Your task to perform on an android device: Where can I buy a nice beach umbrella? Image 0: 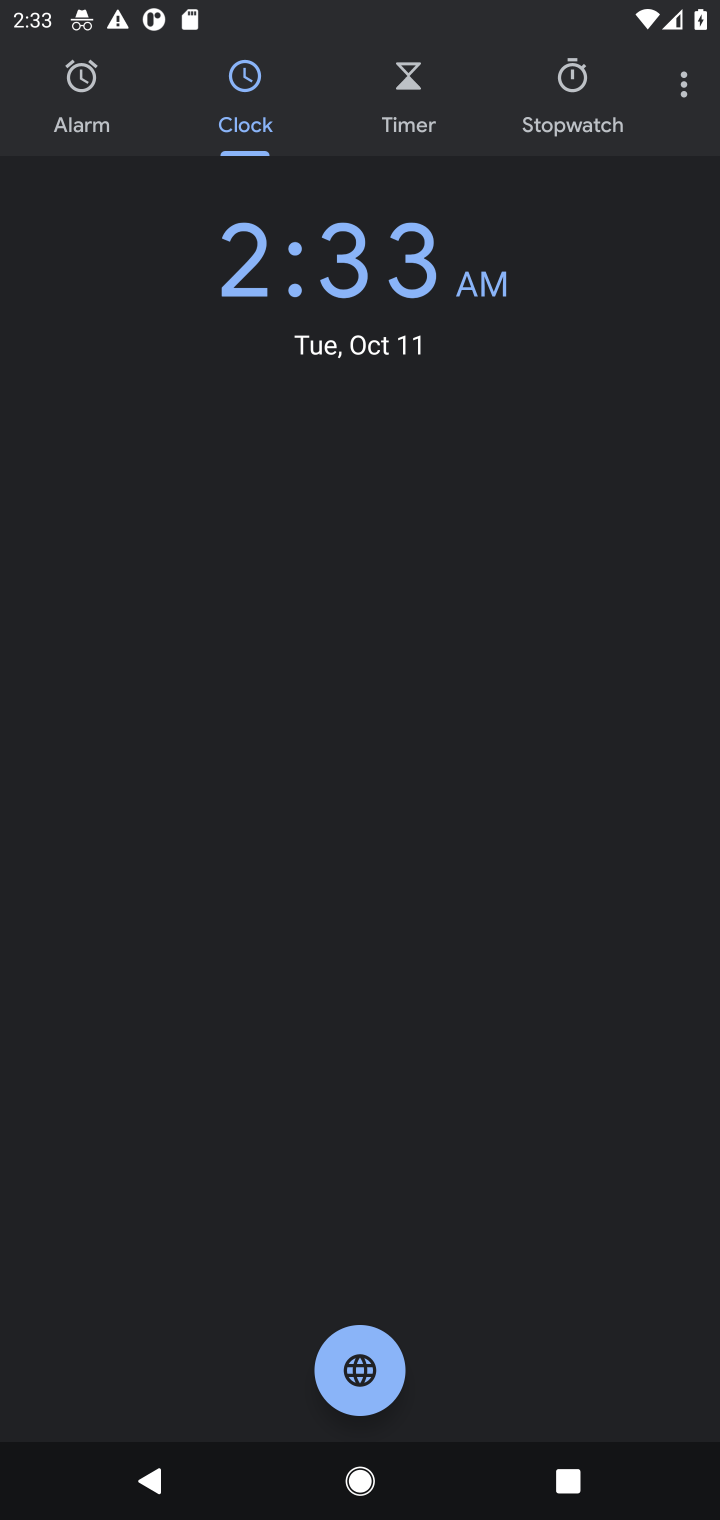
Step 0: press home button
Your task to perform on an android device: Where can I buy a nice beach umbrella? Image 1: 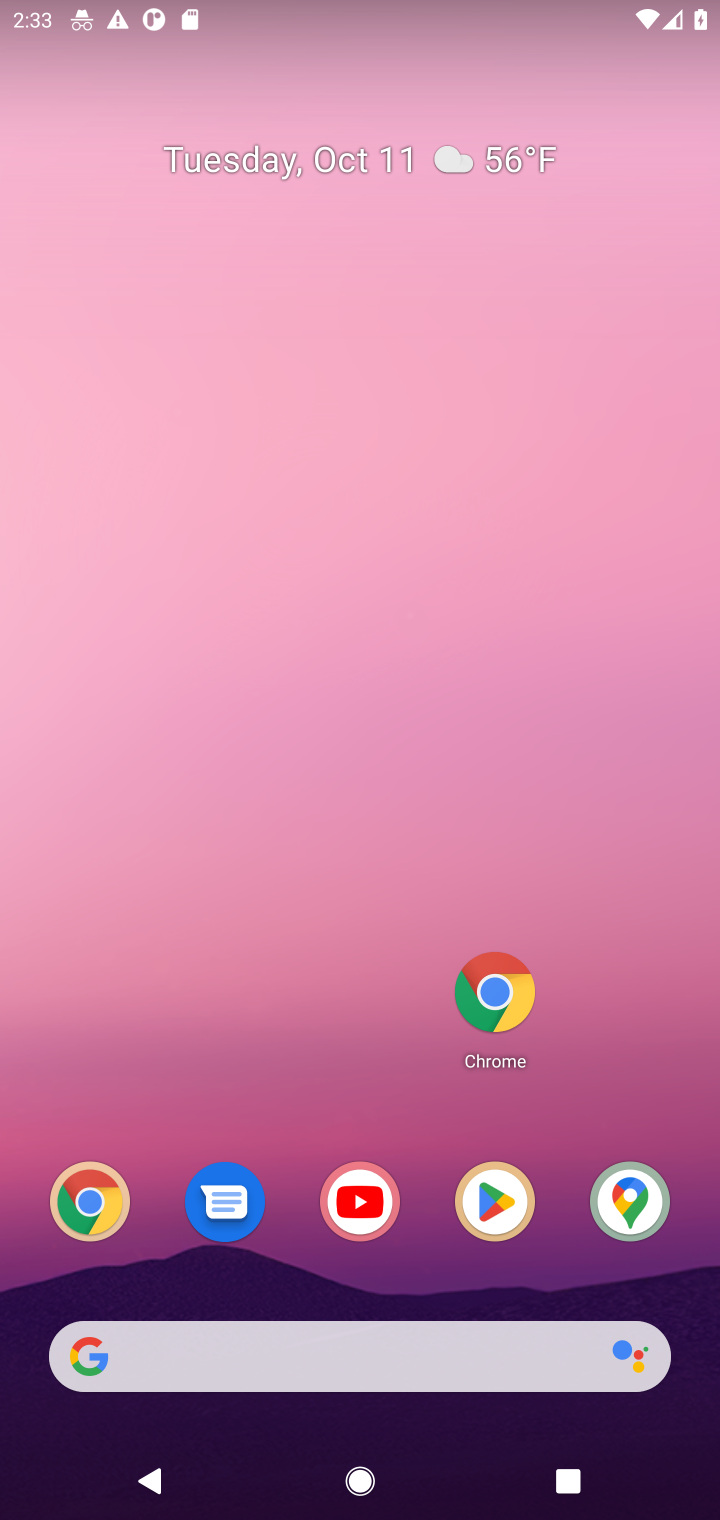
Step 1: click (468, 980)
Your task to perform on an android device: Where can I buy a nice beach umbrella? Image 2: 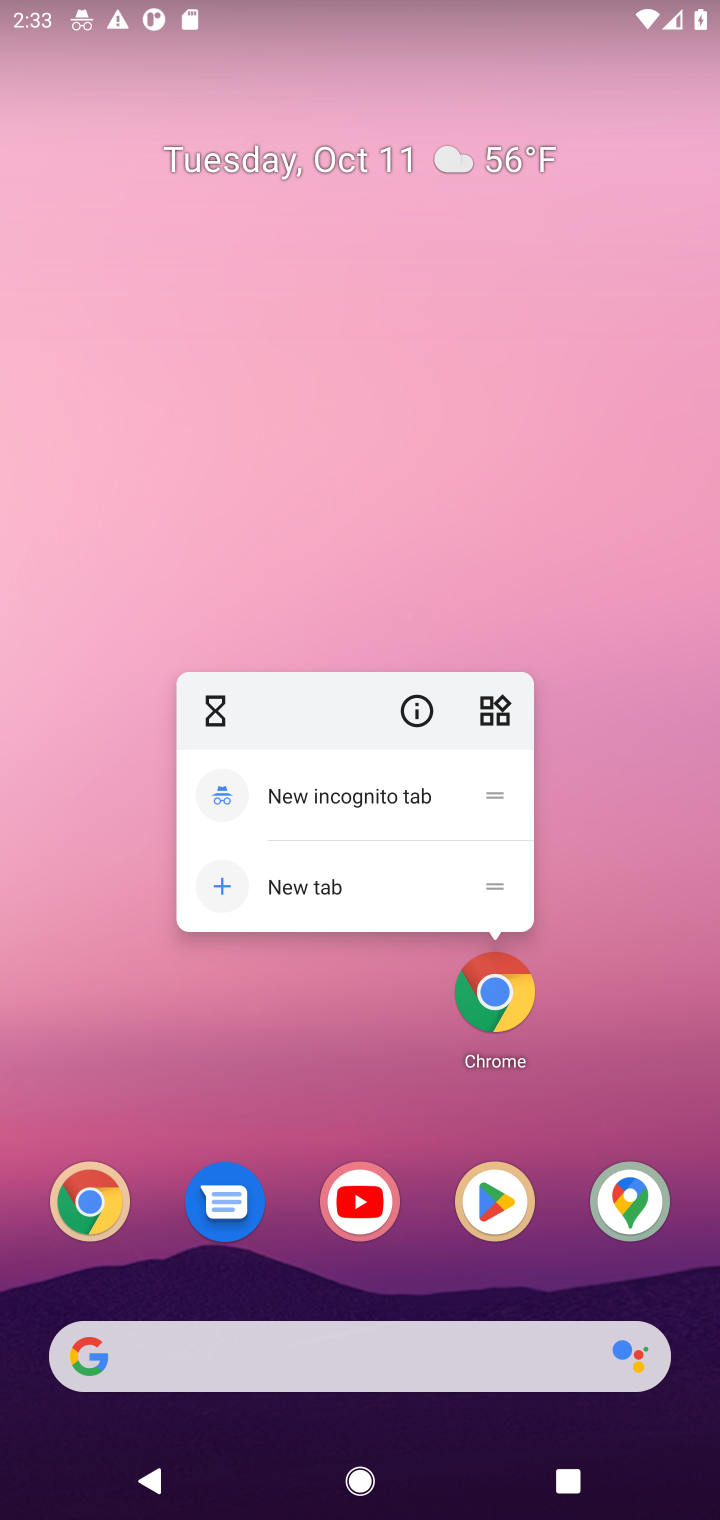
Step 2: click (498, 995)
Your task to perform on an android device: Where can I buy a nice beach umbrella? Image 3: 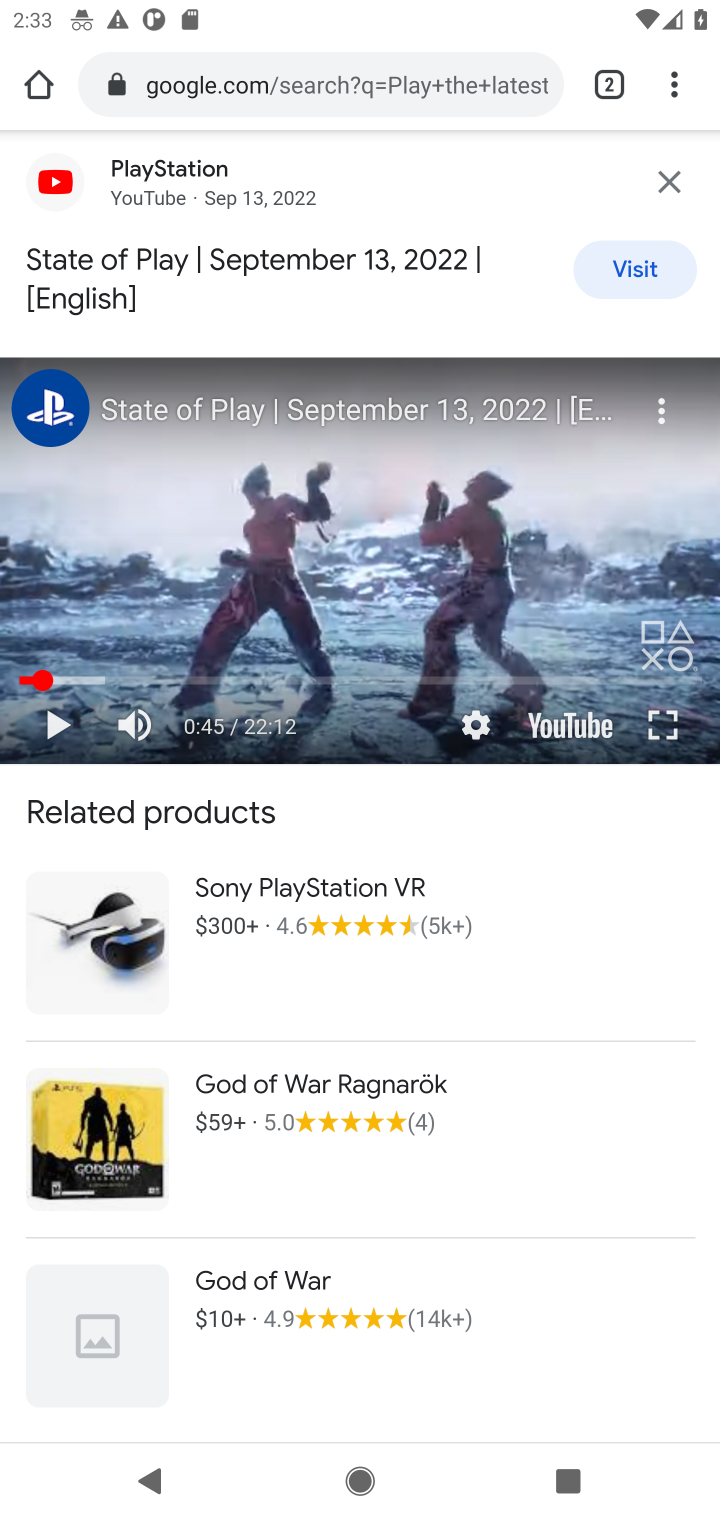
Step 3: click (400, 74)
Your task to perform on an android device: Where can I buy a nice beach umbrella? Image 4: 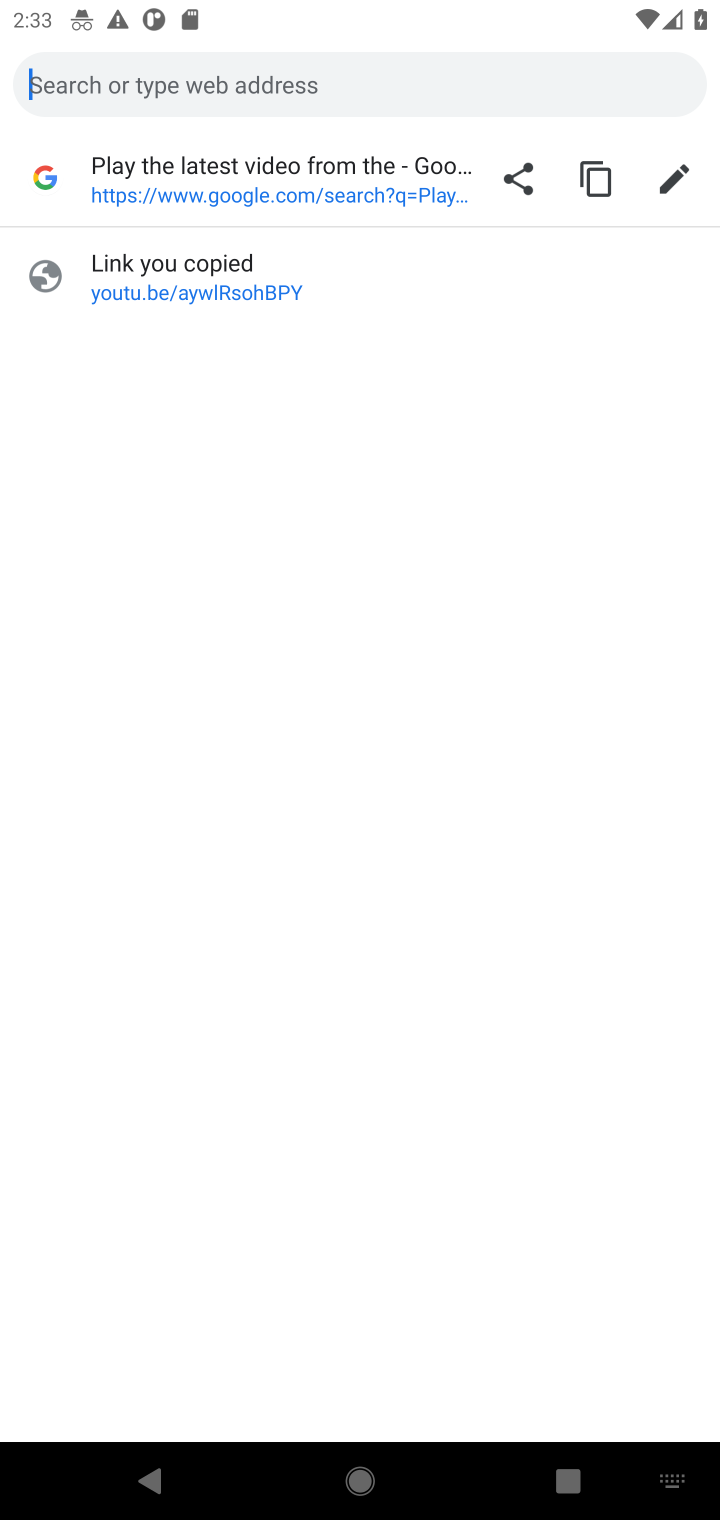
Step 4: type "Where can I buy a nice beach umbrella"
Your task to perform on an android device: Where can I buy a nice beach umbrella? Image 5: 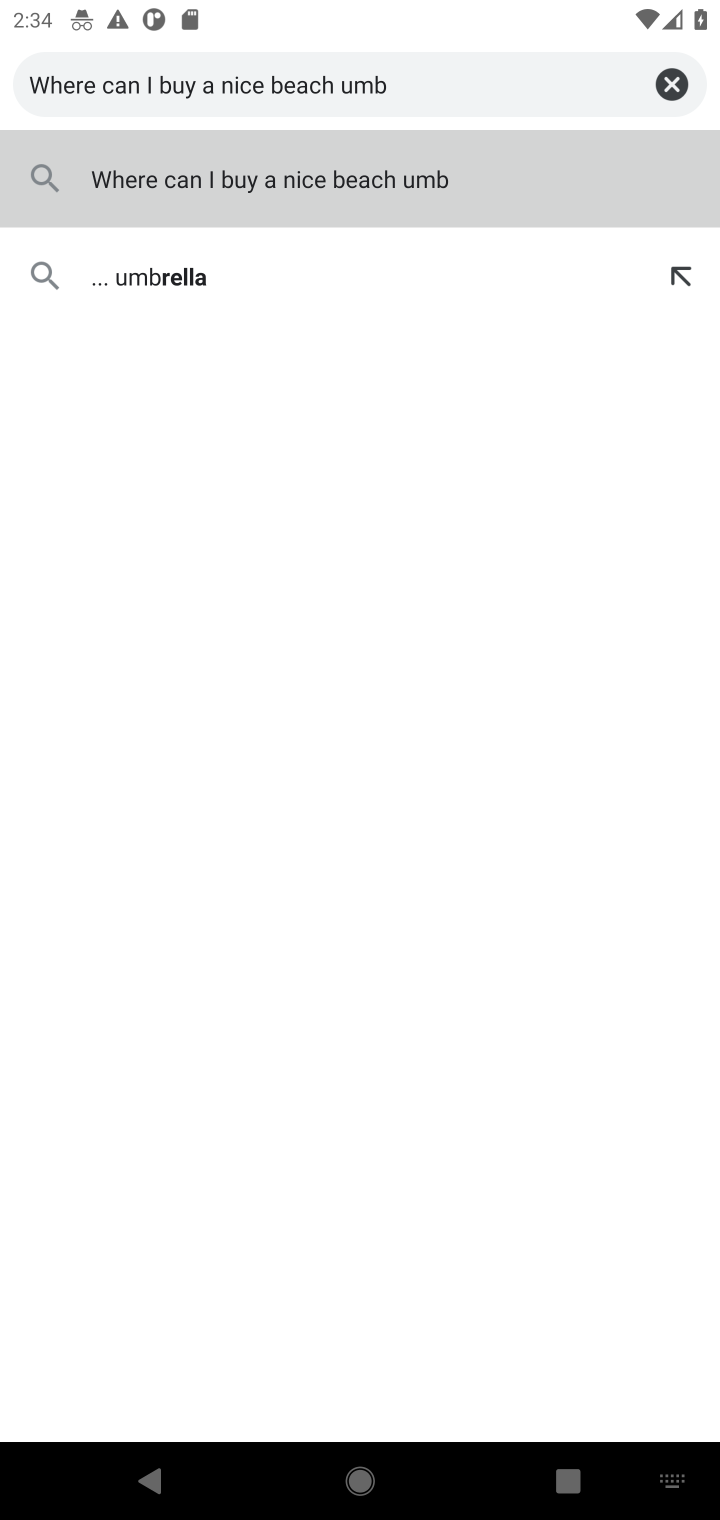
Step 5: press enter
Your task to perform on an android device: Where can I buy a nice beach umbrella? Image 6: 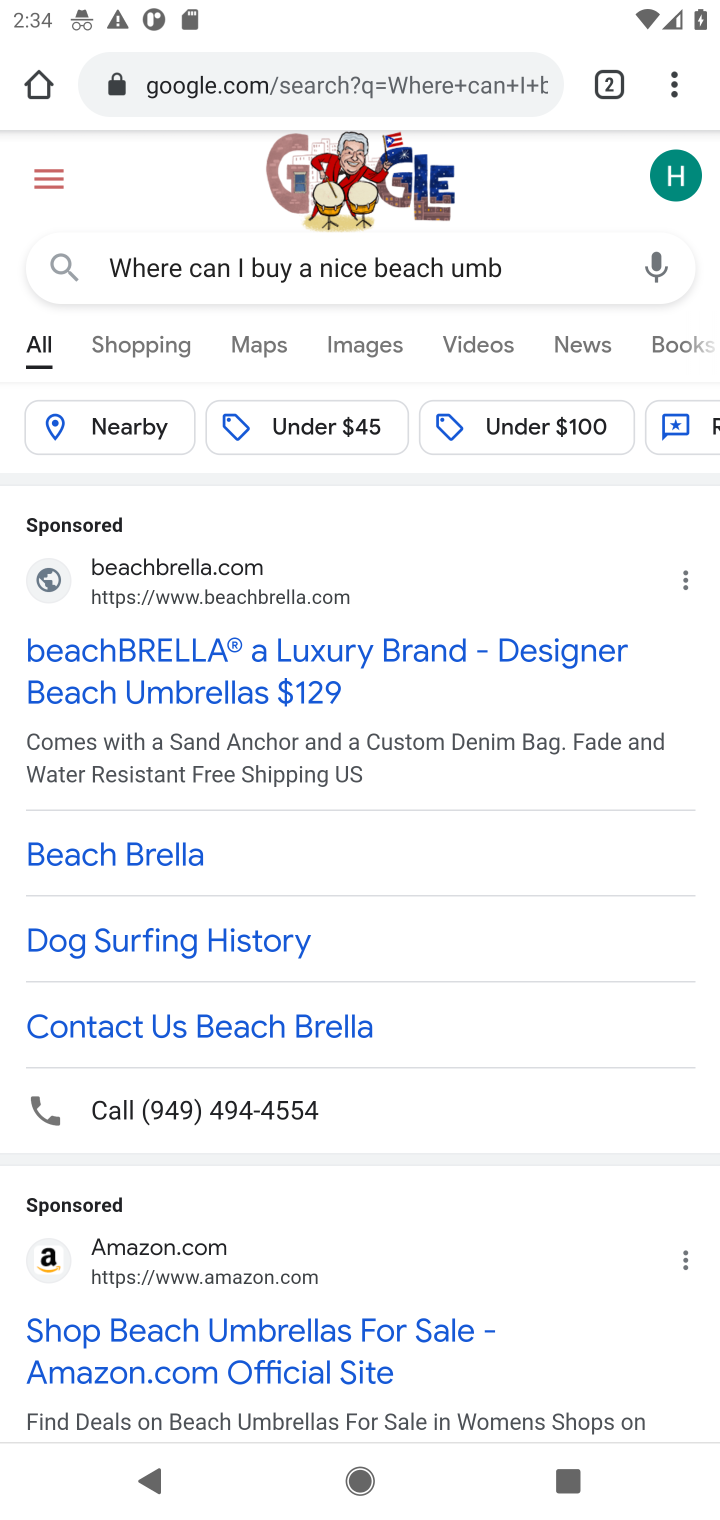
Step 6: click (286, 659)
Your task to perform on an android device: Where can I buy a nice beach umbrella? Image 7: 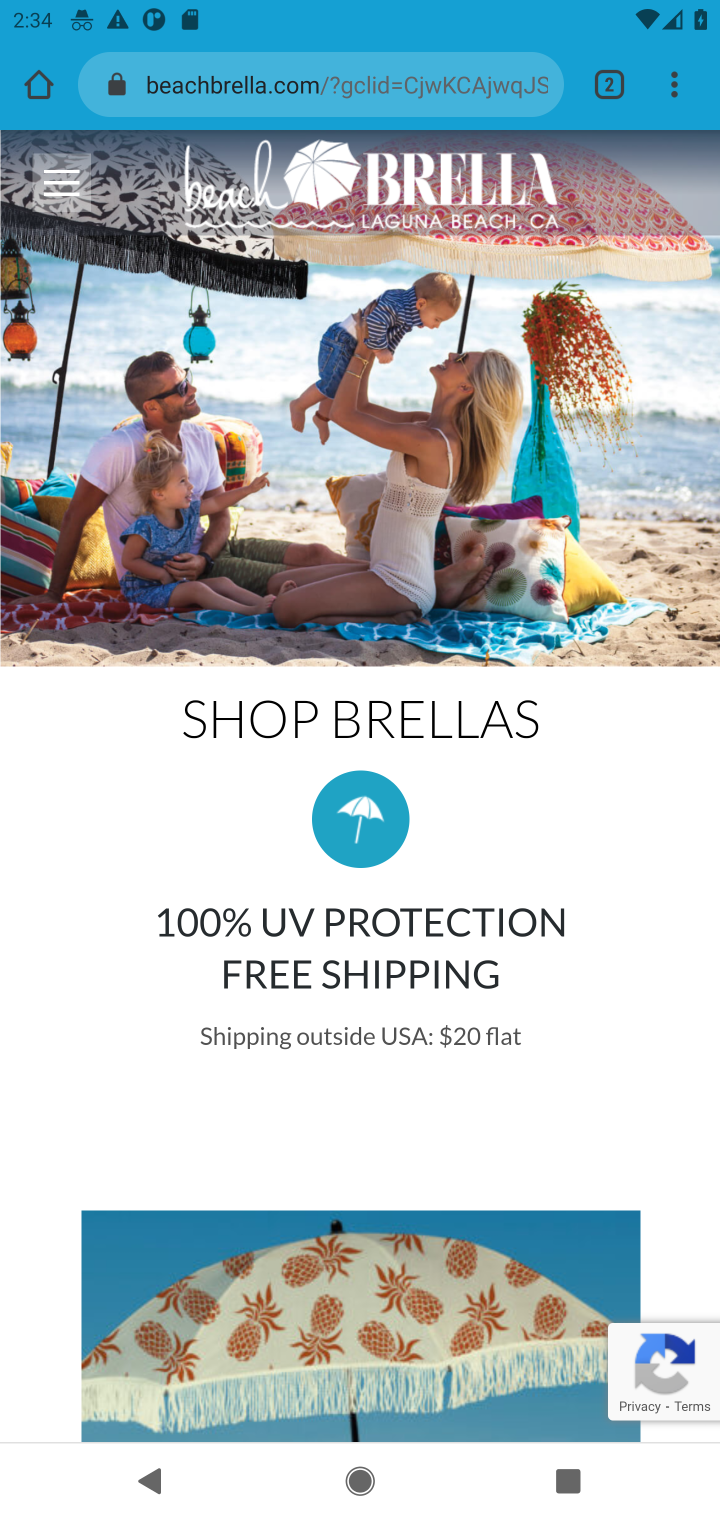
Step 7: task complete